Your task to perform on an android device: move a message to another label in the gmail app Image 0: 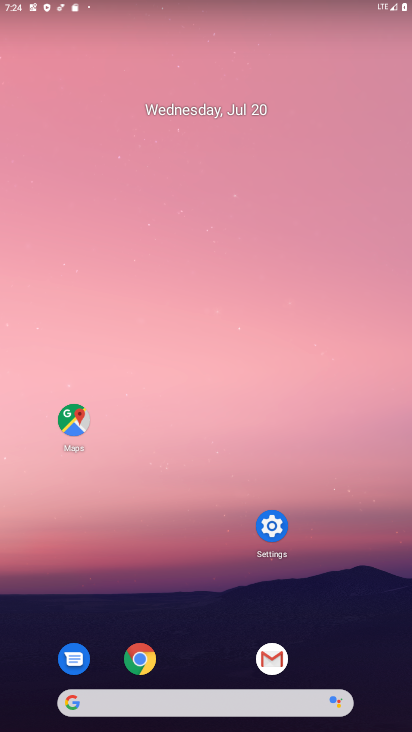
Step 0: press home button
Your task to perform on an android device: move a message to another label in the gmail app Image 1: 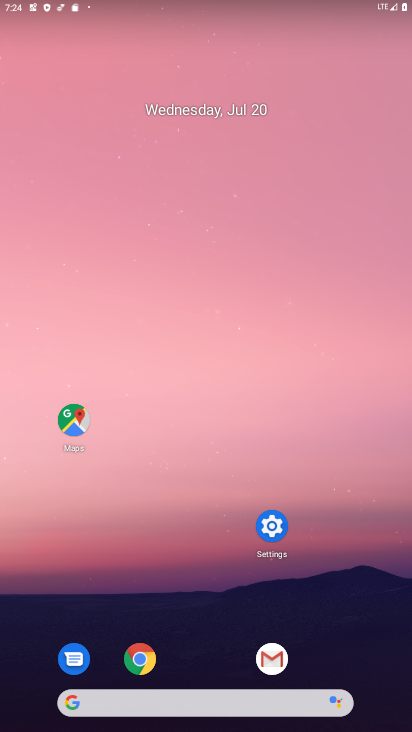
Step 1: click (282, 658)
Your task to perform on an android device: move a message to another label in the gmail app Image 2: 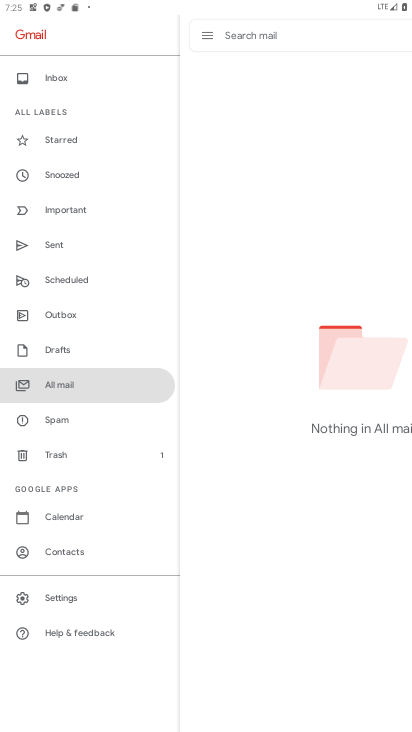
Step 2: click (72, 588)
Your task to perform on an android device: move a message to another label in the gmail app Image 3: 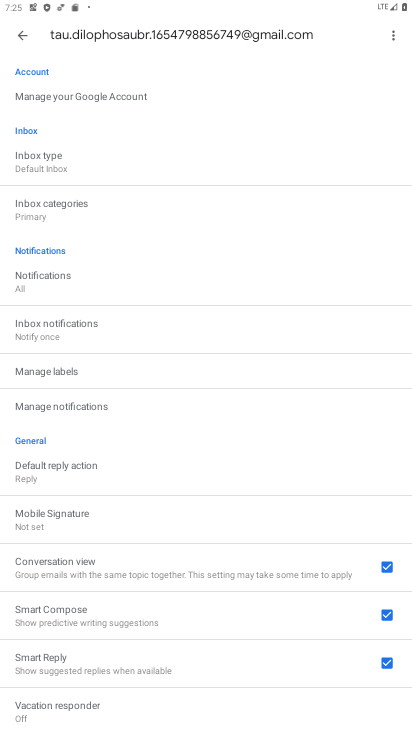
Step 3: click (85, 371)
Your task to perform on an android device: move a message to another label in the gmail app Image 4: 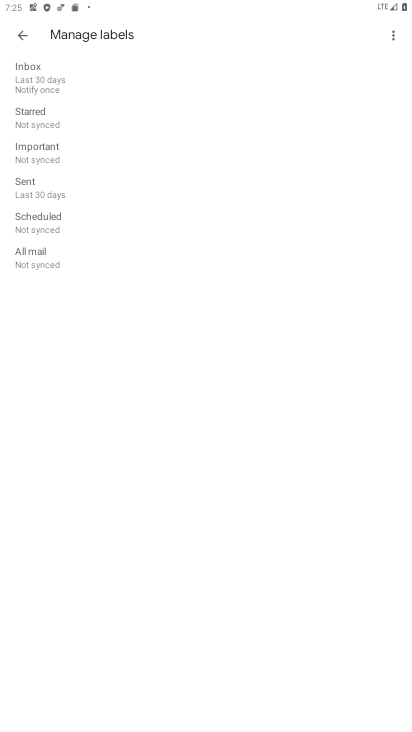
Step 4: task complete